Your task to perform on an android device: Open accessibility settings Image 0: 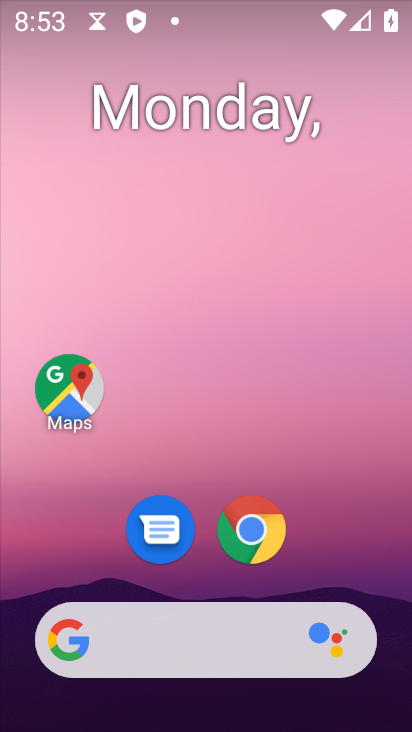
Step 0: click (266, 85)
Your task to perform on an android device: Open accessibility settings Image 1: 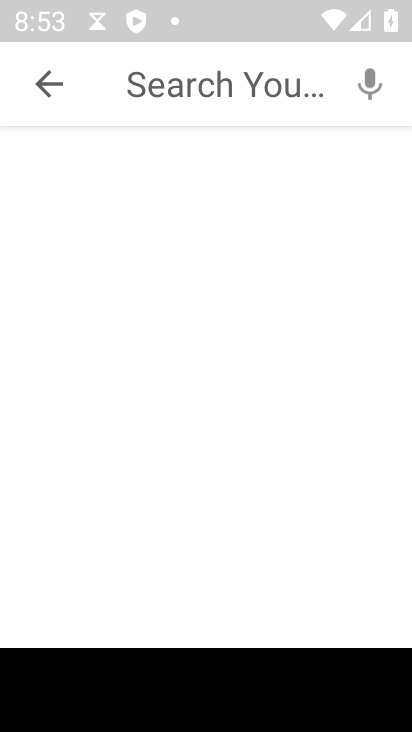
Step 1: press back button
Your task to perform on an android device: Open accessibility settings Image 2: 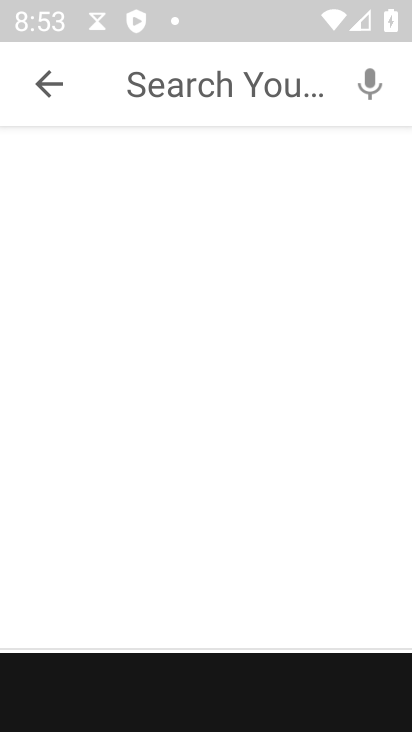
Step 2: press back button
Your task to perform on an android device: Open accessibility settings Image 3: 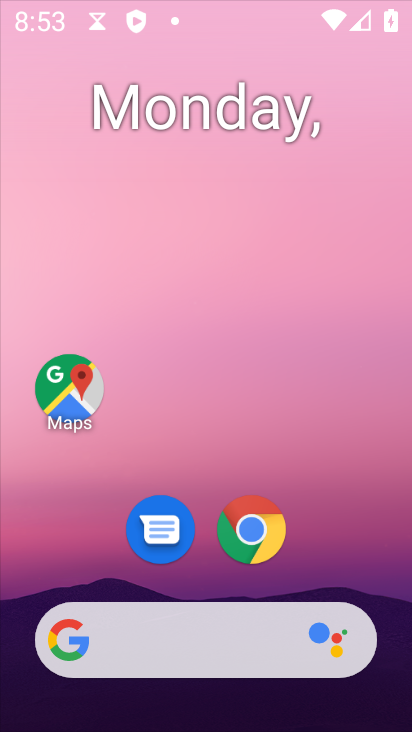
Step 3: press back button
Your task to perform on an android device: Open accessibility settings Image 4: 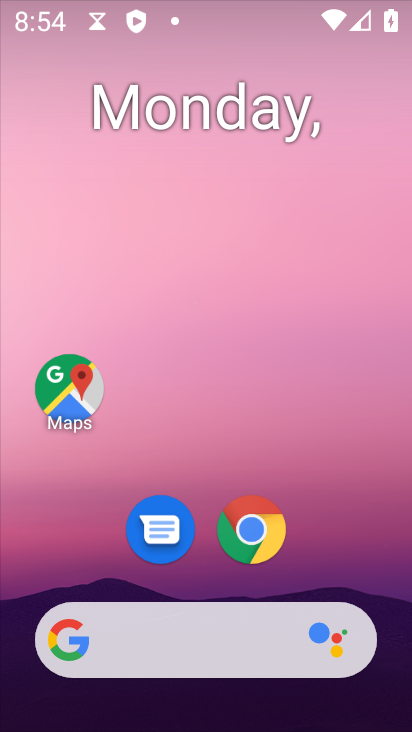
Step 4: click (48, 90)
Your task to perform on an android device: Open accessibility settings Image 5: 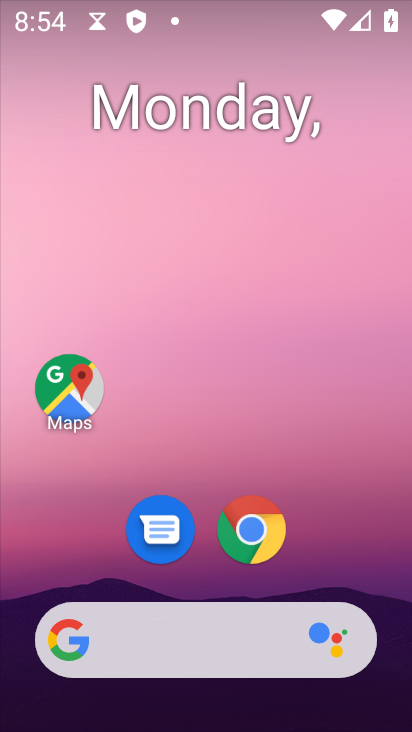
Step 5: drag from (233, 646) to (213, 198)
Your task to perform on an android device: Open accessibility settings Image 6: 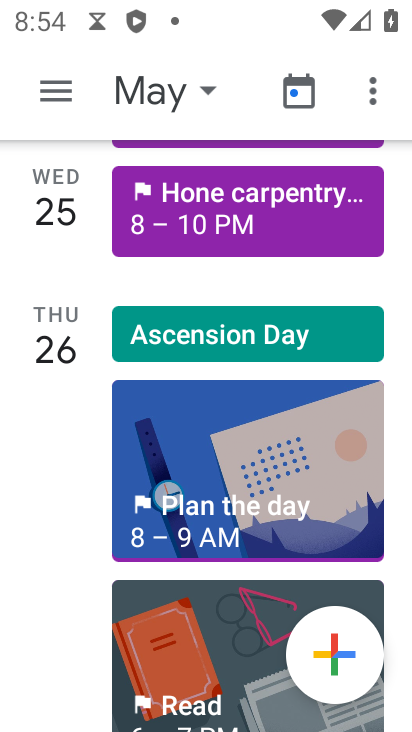
Step 6: press home button
Your task to perform on an android device: Open accessibility settings Image 7: 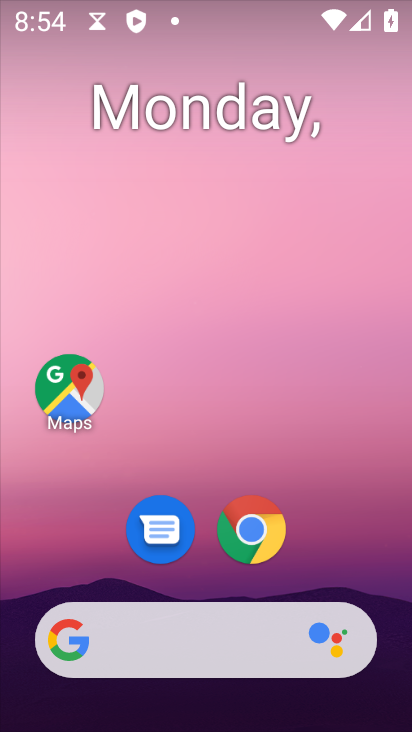
Step 7: drag from (249, 418) to (237, 17)
Your task to perform on an android device: Open accessibility settings Image 8: 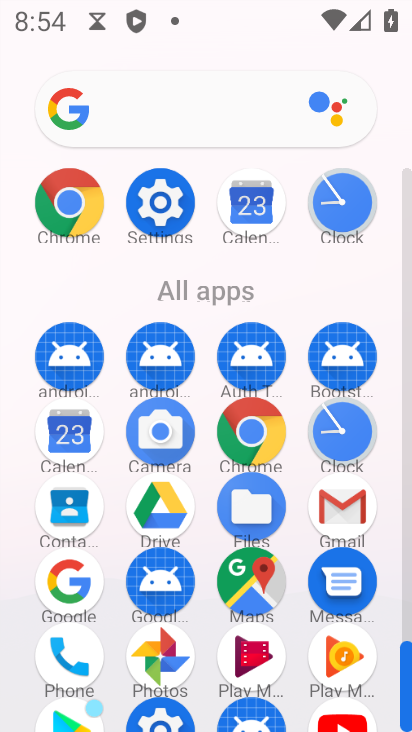
Step 8: click (164, 193)
Your task to perform on an android device: Open accessibility settings Image 9: 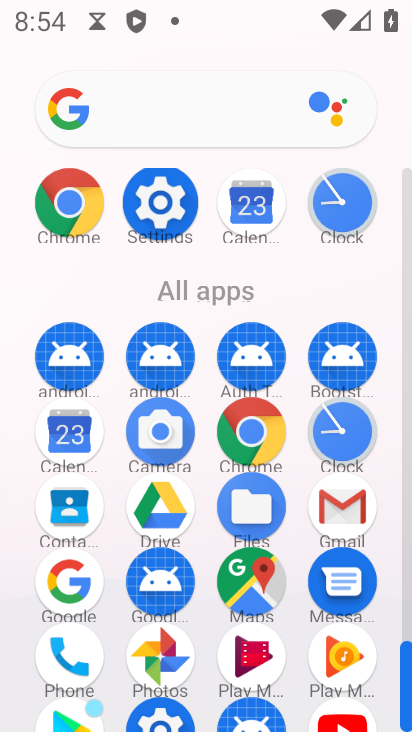
Step 9: click (166, 191)
Your task to perform on an android device: Open accessibility settings Image 10: 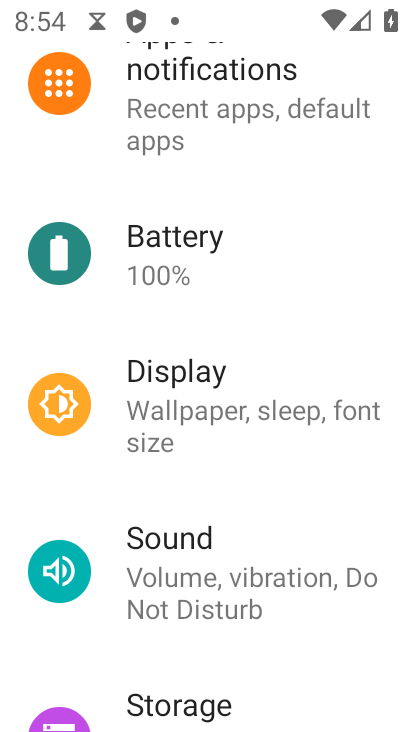
Step 10: drag from (276, 375) to (314, 49)
Your task to perform on an android device: Open accessibility settings Image 11: 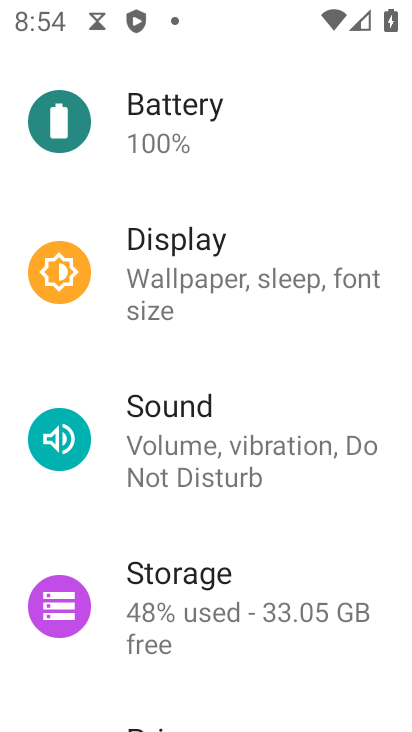
Step 11: drag from (155, 516) to (154, 187)
Your task to perform on an android device: Open accessibility settings Image 12: 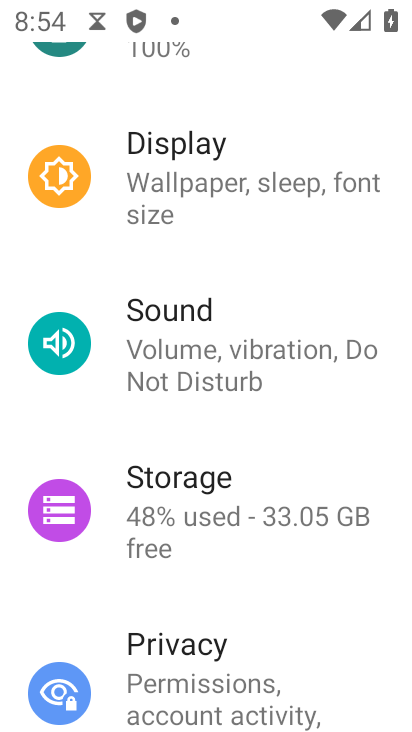
Step 12: drag from (255, 384) to (237, 130)
Your task to perform on an android device: Open accessibility settings Image 13: 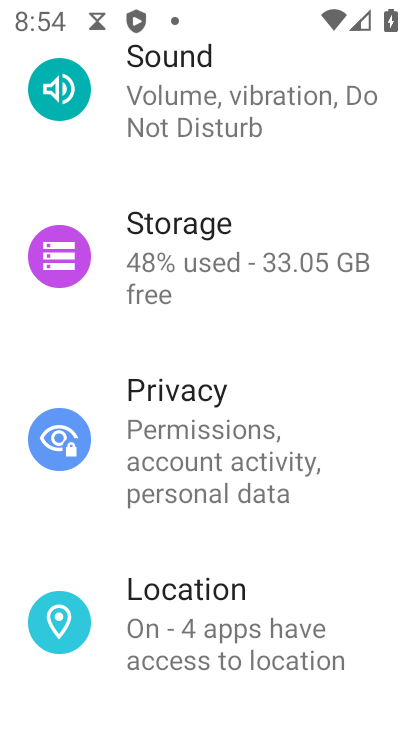
Step 13: drag from (227, 524) to (174, 81)
Your task to perform on an android device: Open accessibility settings Image 14: 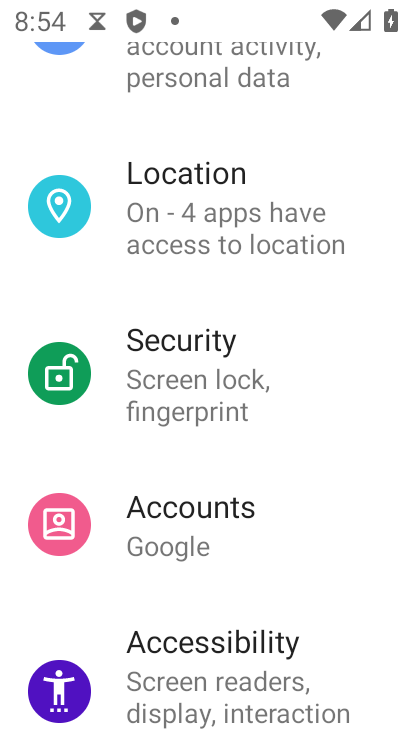
Step 14: drag from (174, 450) to (173, 30)
Your task to perform on an android device: Open accessibility settings Image 15: 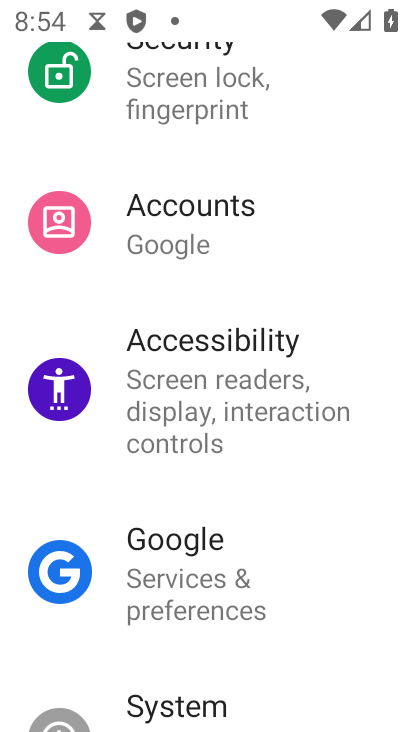
Step 15: click (171, 380)
Your task to perform on an android device: Open accessibility settings Image 16: 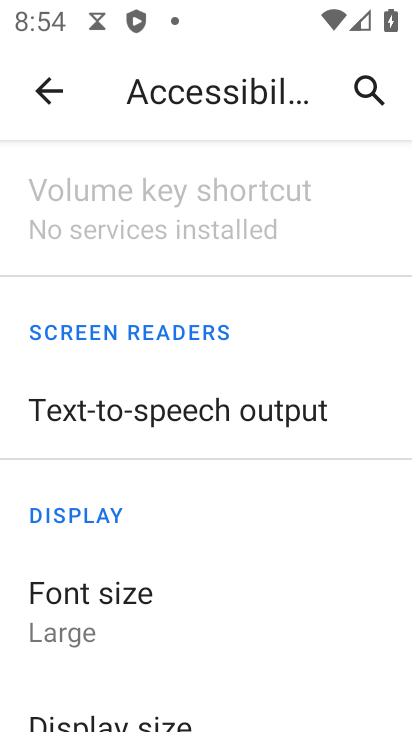
Step 16: task complete